Your task to perform on an android device: toggle notifications settings in the gmail app Image 0: 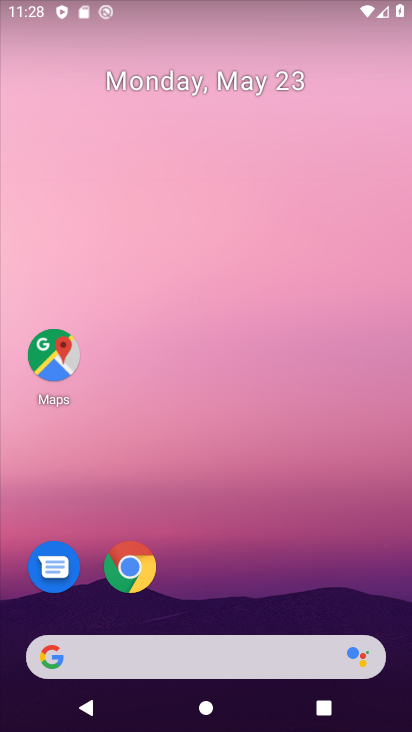
Step 0: press home button
Your task to perform on an android device: toggle notifications settings in the gmail app Image 1: 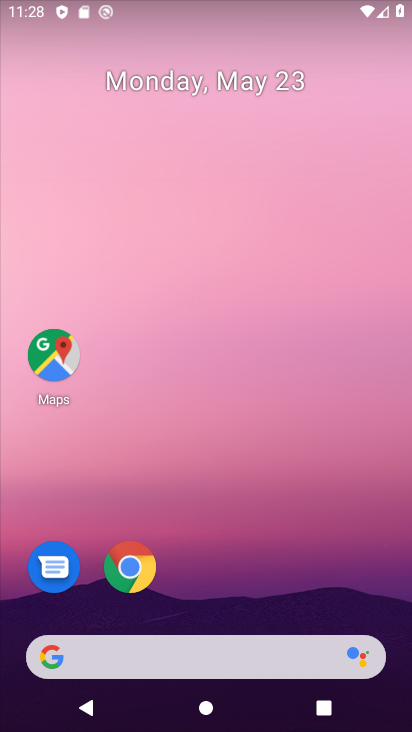
Step 1: drag from (377, 556) to (305, 102)
Your task to perform on an android device: toggle notifications settings in the gmail app Image 2: 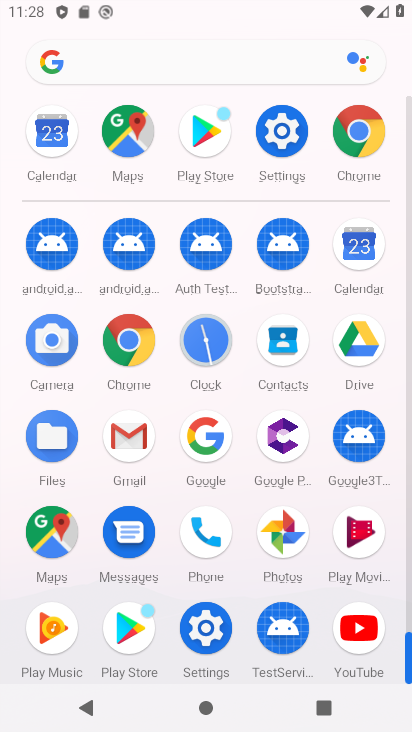
Step 2: click (121, 452)
Your task to perform on an android device: toggle notifications settings in the gmail app Image 3: 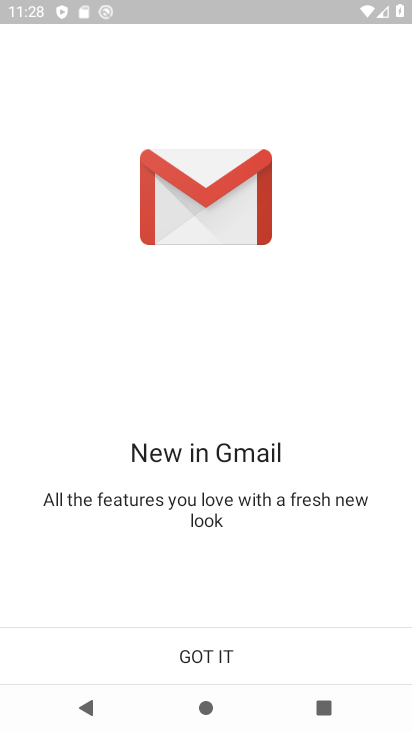
Step 3: click (236, 652)
Your task to perform on an android device: toggle notifications settings in the gmail app Image 4: 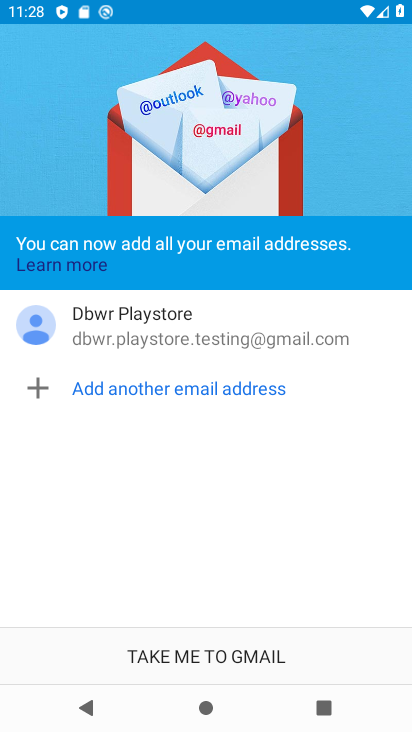
Step 4: click (247, 646)
Your task to perform on an android device: toggle notifications settings in the gmail app Image 5: 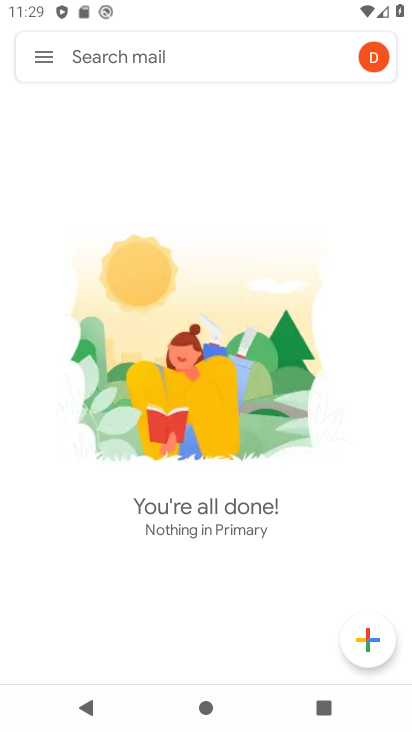
Step 5: click (40, 61)
Your task to perform on an android device: toggle notifications settings in the gmail app Image 6: 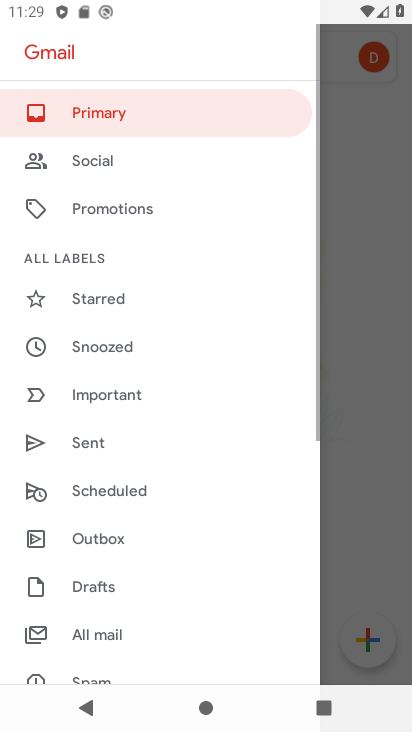
Step 6: drag from (153, 641) to (154, 262)
Your task to perform on an android device: toggle notifications settings in the gmail app Image 7: 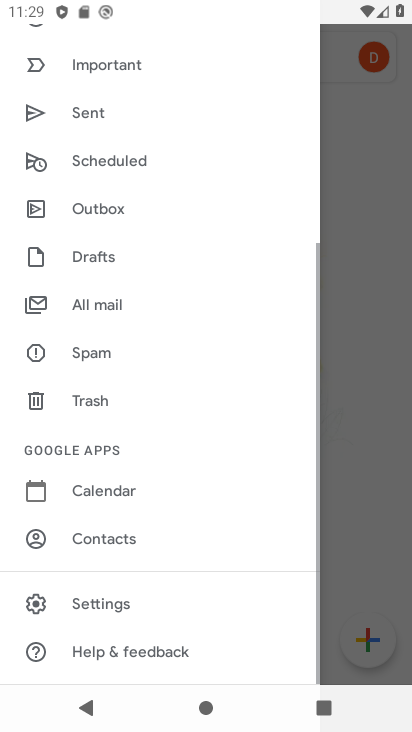
Step 7: click (150, 604)
Your task to perform on an android device: toggle notifications settings in the gmail app Image 8: 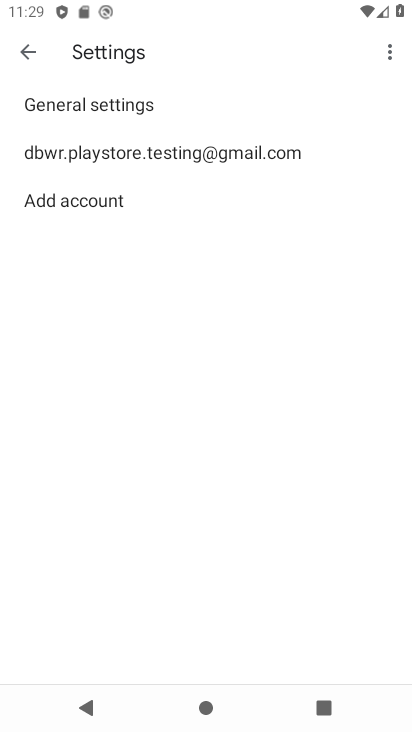
Step 8: click (266, 159)
Your task to perform on an android device: toggle notifications settings in the gmail app Image 9: 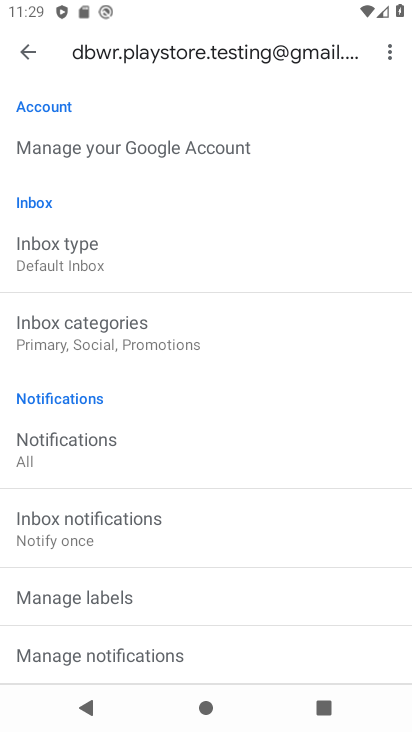
Step 9: click (137, 444)
Your task to perform on an android device: toggle notifications settings in the gmail app Image 10: 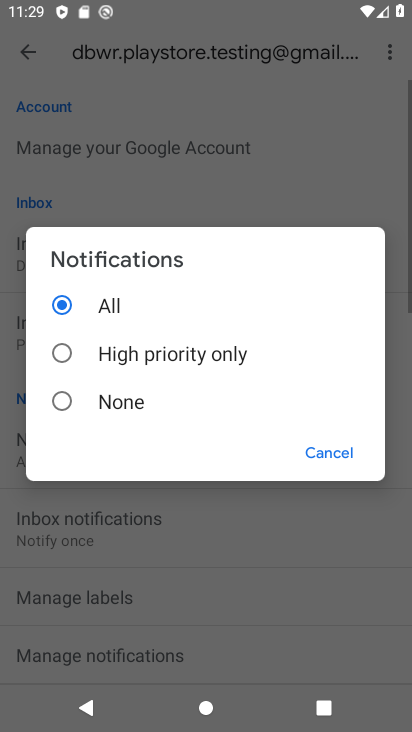
Step 10: click (132, 411)
Your task to perform on an android device: toggle notifications settings in the gmail app Image 11: 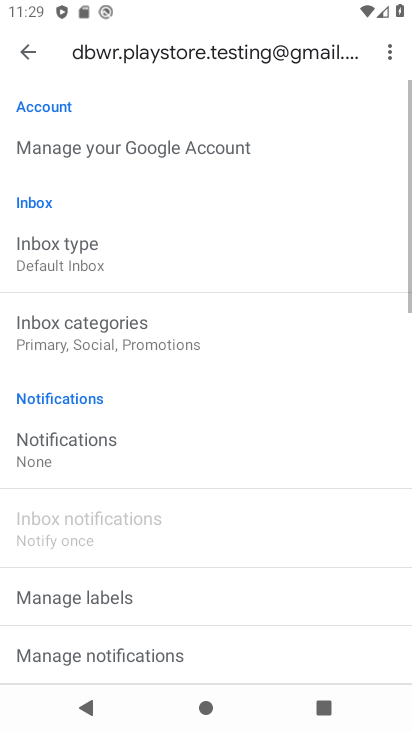
Step 11: task complete